Your task to perform on an android device: Add "alienware area 51" to the cart on costco Image 0: 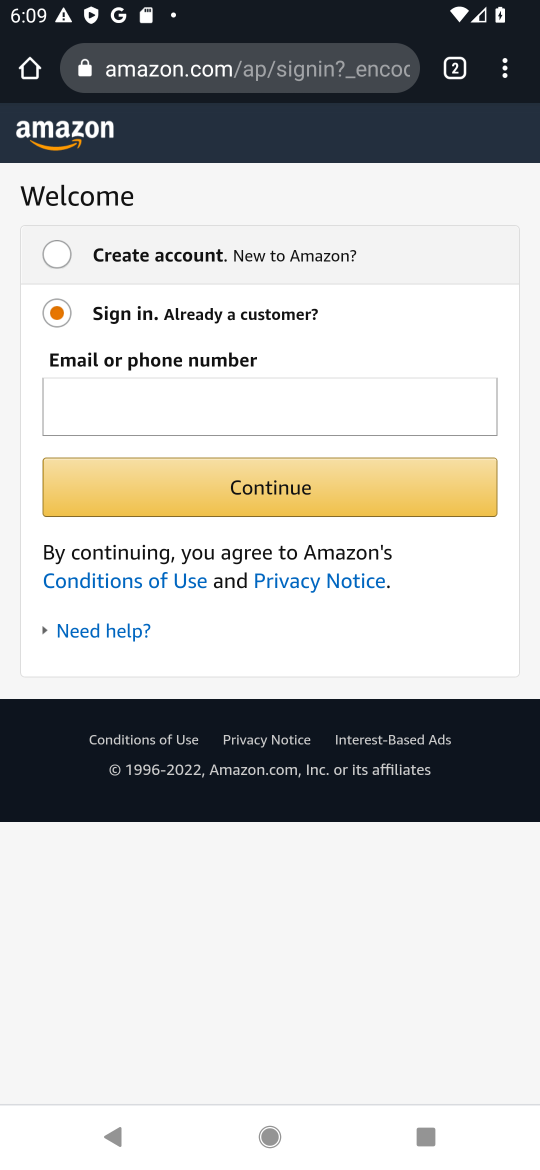
Step 0: click (459, 69)
Your task to perform on an android device: Add "alienware area 51" to the cart on costco Image 1: 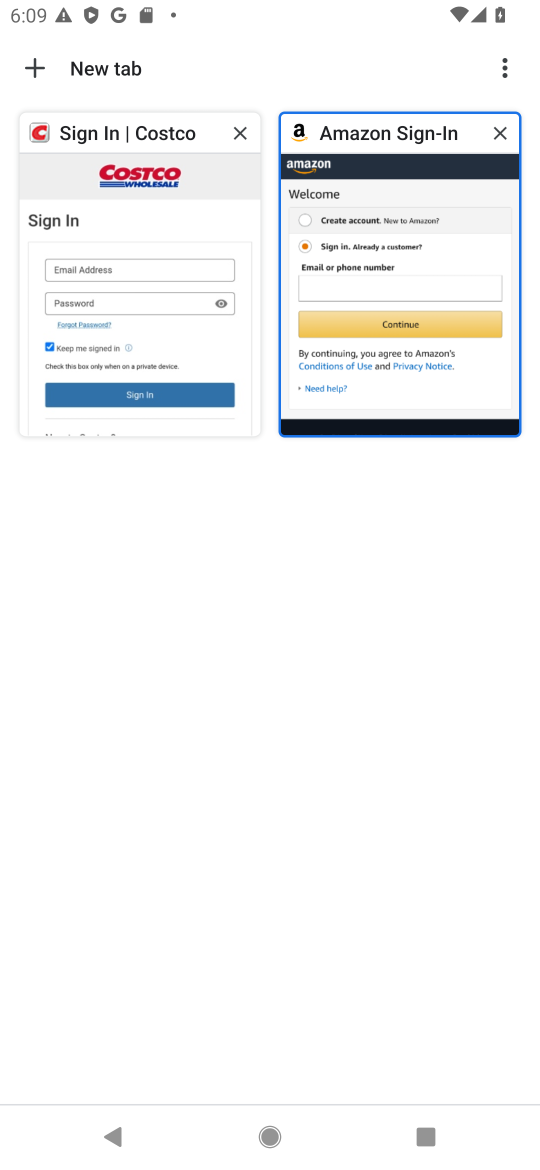
Step 1: click (131, 258)
Your task to perform on an android device: Add "alienware area 51" to the cart on costco Image 2: 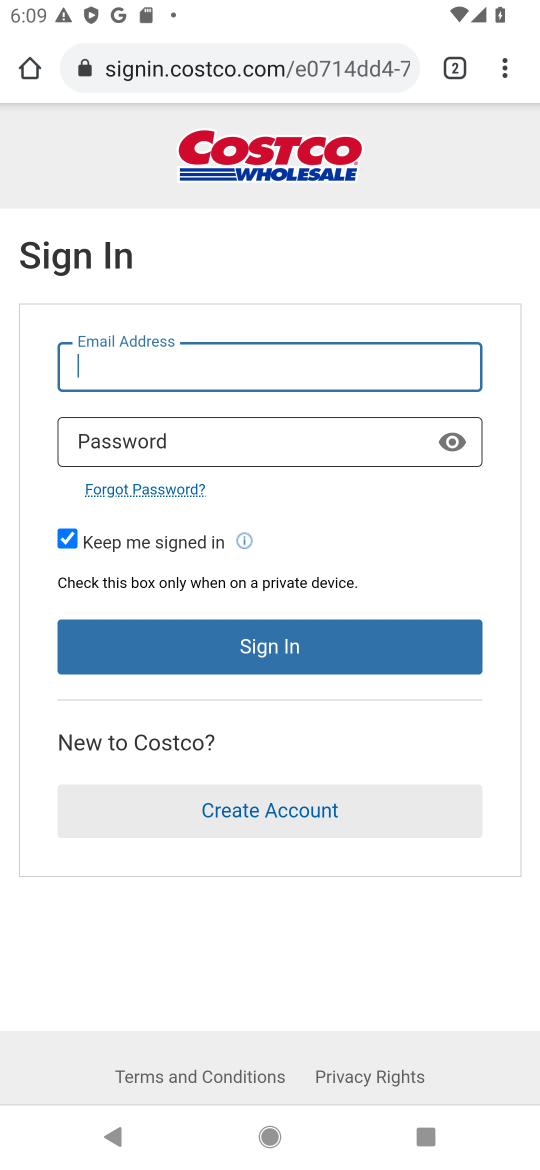
Step 2: press back button
Your task to perform on an android device: Add "alienware area 51" to the cart on costco Image 3: 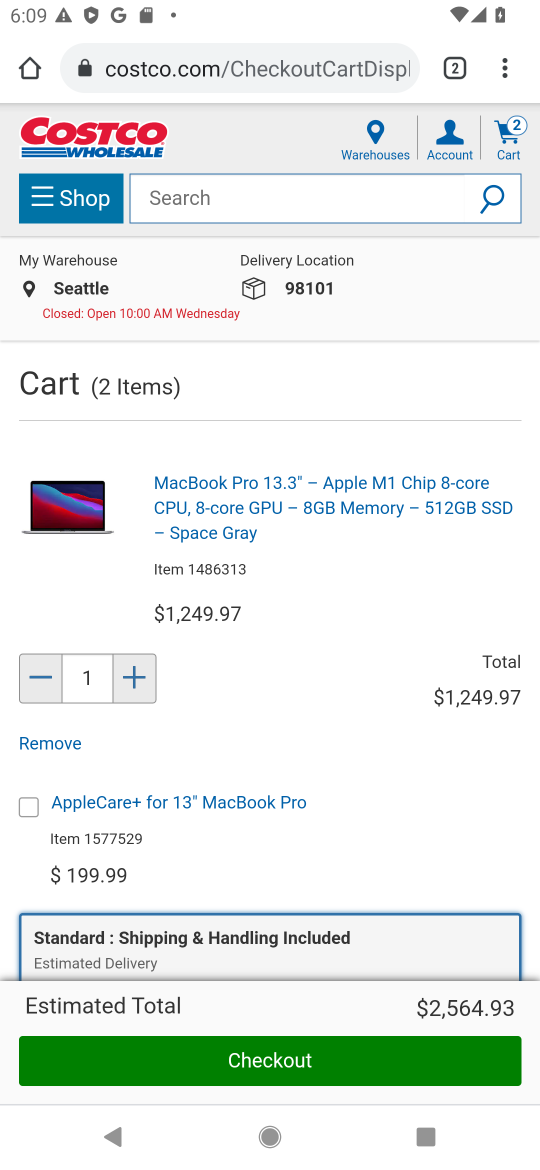
Step 3: click (200, 194)
Your task to perform on an android device: Add "alienware area 51" to the cart on costco Image 4: 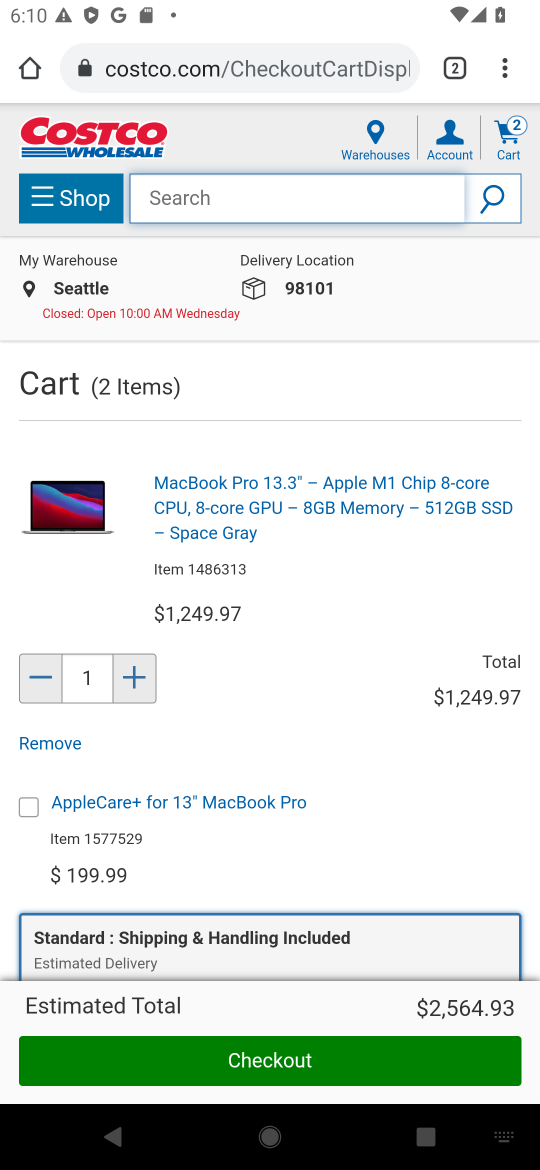
Step 4: type "alienware area 51"
Your task to perform on an android device: Add "alienware area 51" to the cart on costco Image 5: 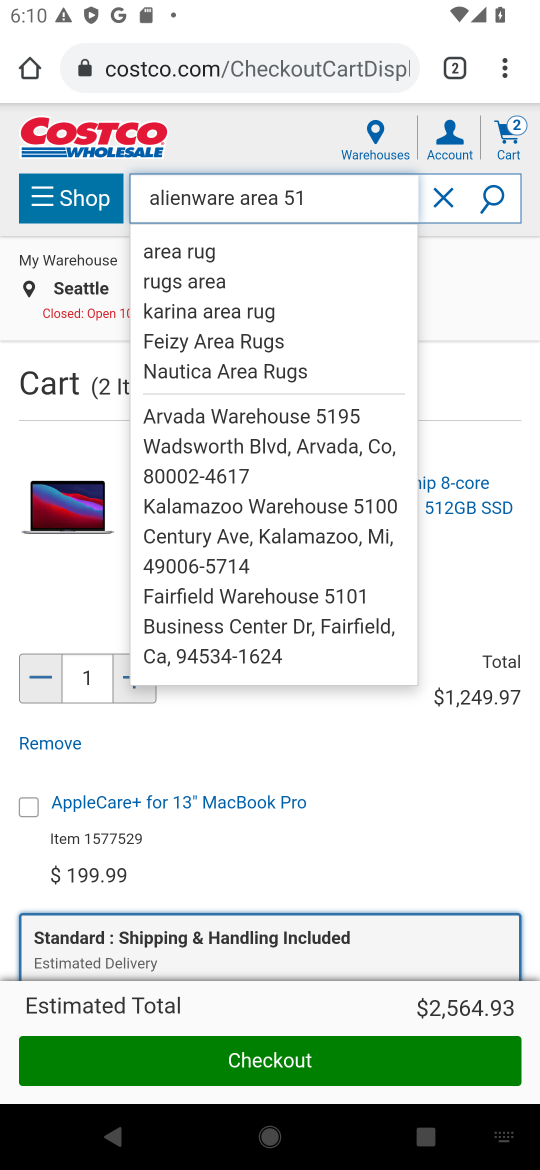
Step 5: click (493, 186)
Your task to perform on an android device: Add "alienware area 51" to the cart on costco Image 6: 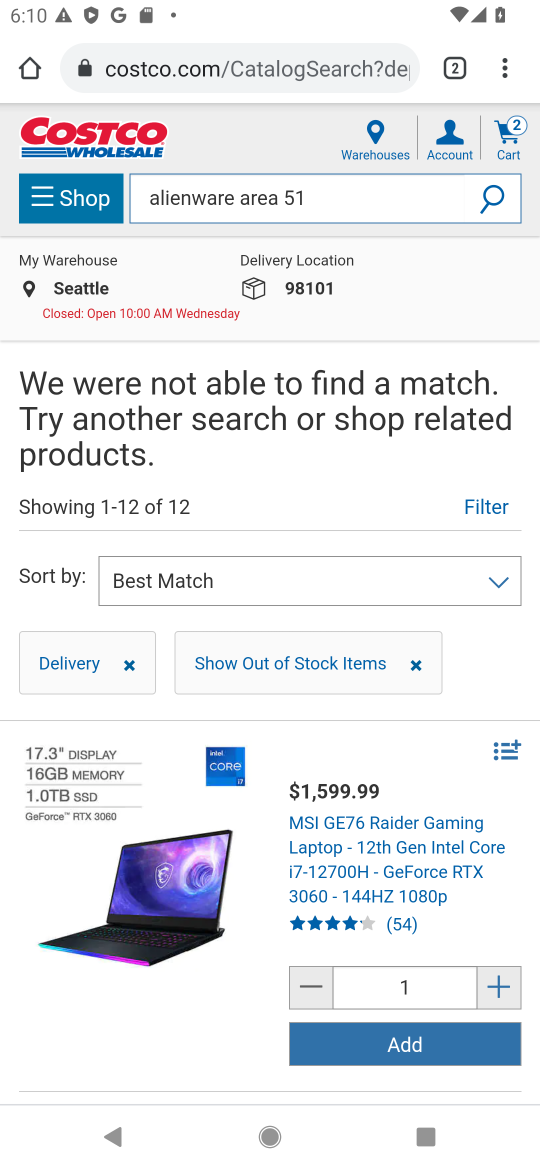
Step 6: task complete